Your task to perform on an android device: Open the map Image 0: 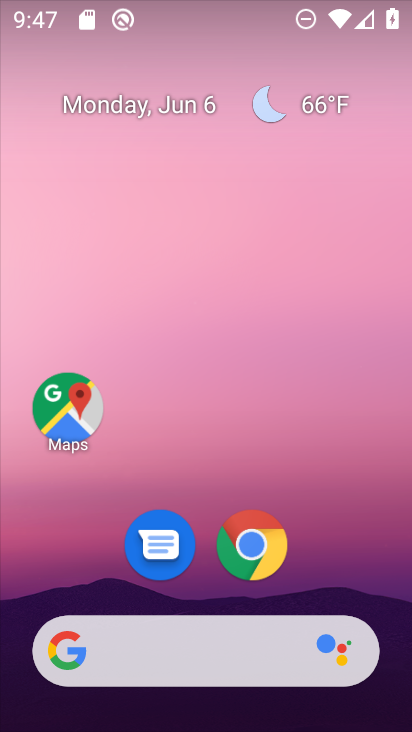
Step 0: drag from (207, 575) to (107, 162)
Your task to perform on an android device: Open the map Image 1: 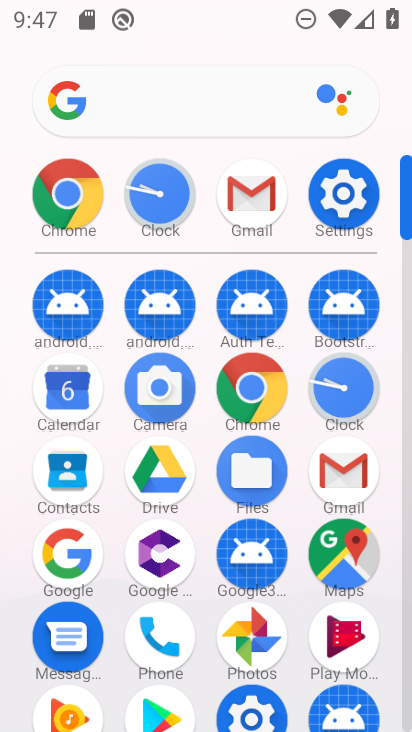
Step 1: click (331, 569)
Your task to perform on an android device: Open the map Image 2: 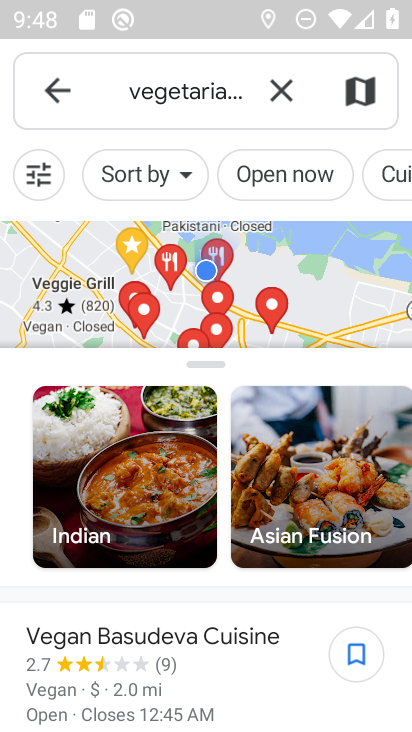
Step 2: task complete